Your task to perform on an android device: Turn off the flashlight Image 0: 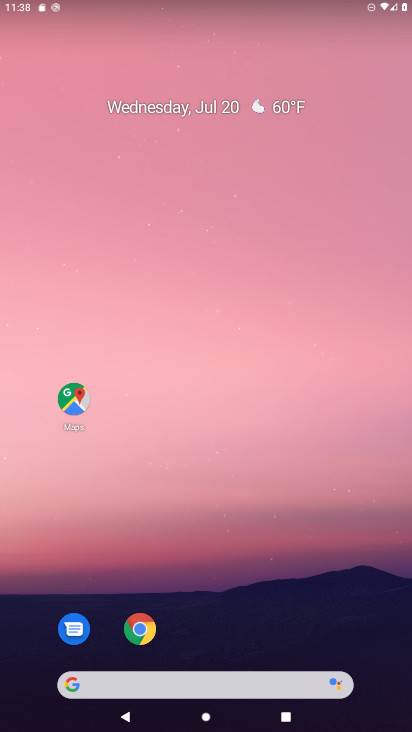
Step 0: drag from (250, 469) to (264, 71)
Your task to perform on an android device: Turn off the flashlight Image 1: 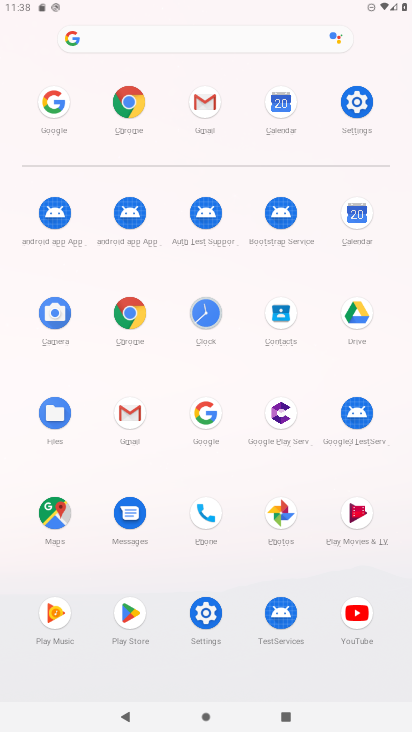
Step 1: click (360, 88)
Your task to perform on an android device: Turn off the flashlight Image 2: 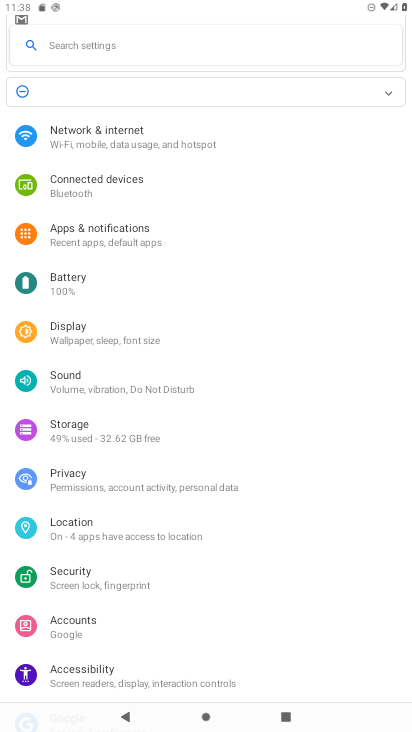
Step 2: task complete